Your task to perform on an android device: Open Chrome and go to settings Image 0: 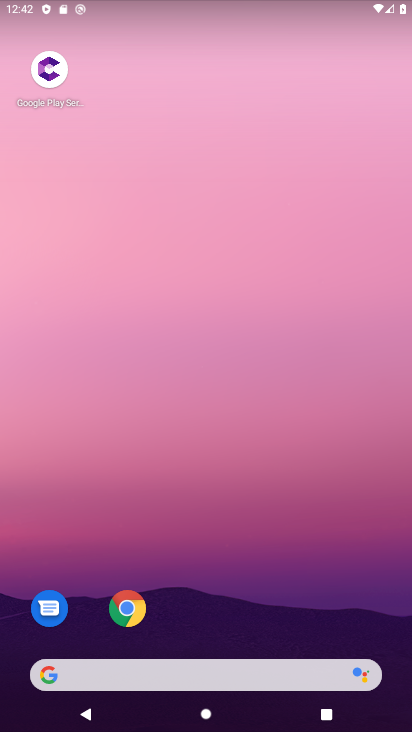
Step 0: click (135, 616)
Your task to perform on an android device: Open Chrome and go to settings Image 1: 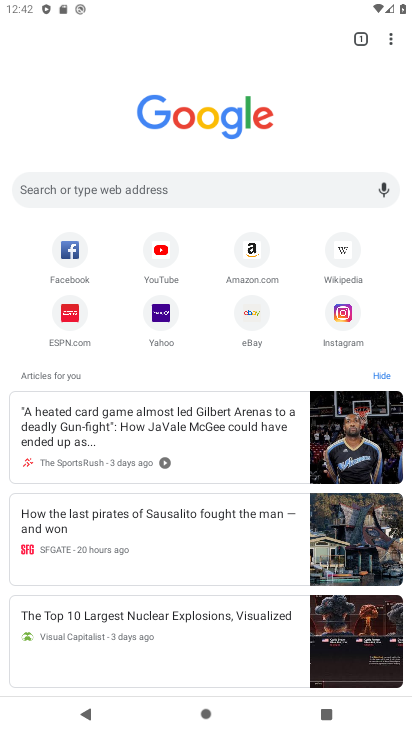
Step 1: click (393, 37)
Your task to perform on an android device: Open Chrome and go to settings Image 2: 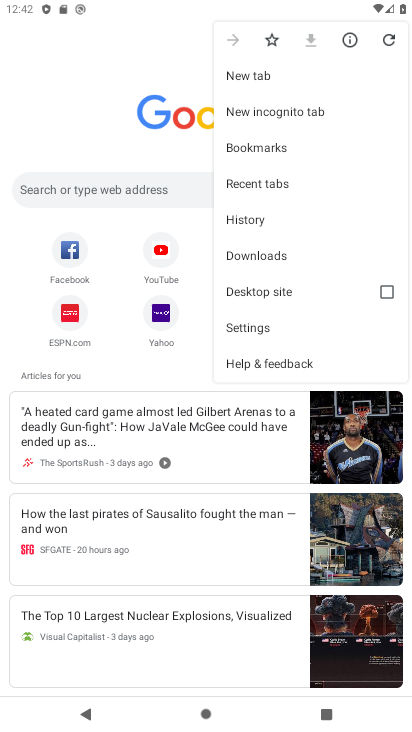
Step 2: click (256, 325)
Your task to perform on an android device: Open Chrome and go to settings Image 3: 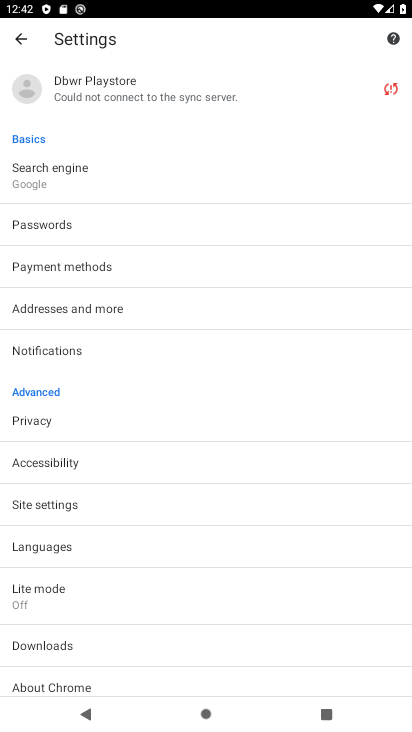
Step 3: task complete